Your task to perform on an android device: change notifications settings Image 0: 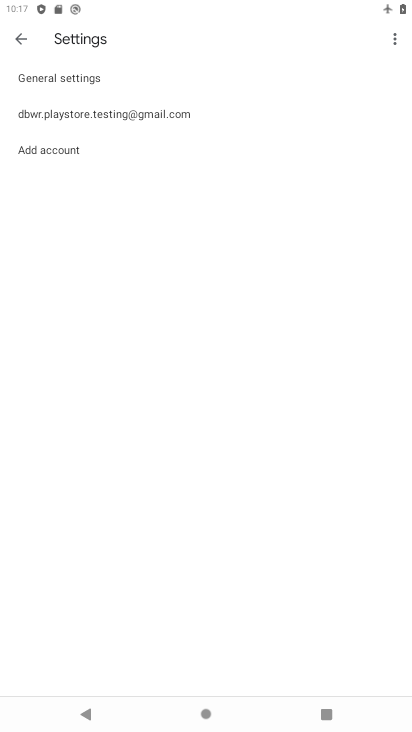
Step 0: press home button
Your task to perform on an android device: change notifications settings Image 1: 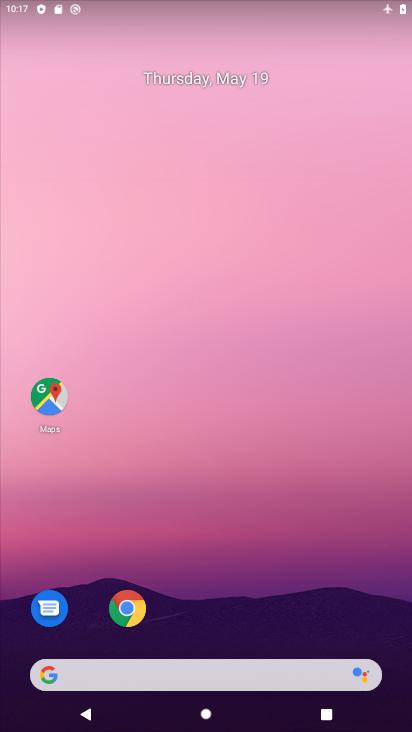
Step 1: drag from (392, 672) to (390, 274)
Your task to perform on an android device: change notifications settings Image 2: 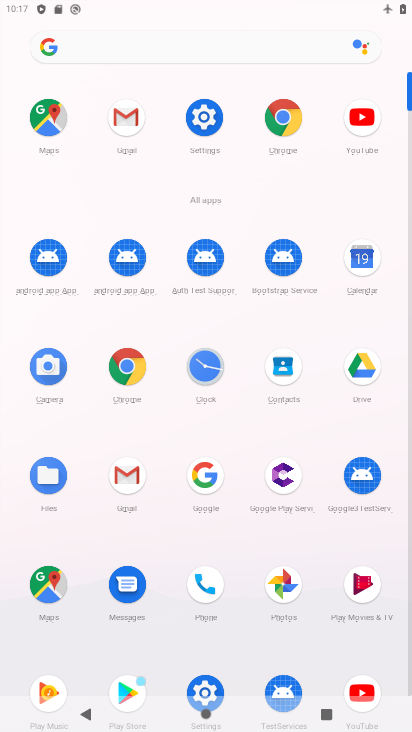
Step 2: click (205, 119)
Your task to perform on an android device: change notifications settings Image 3: 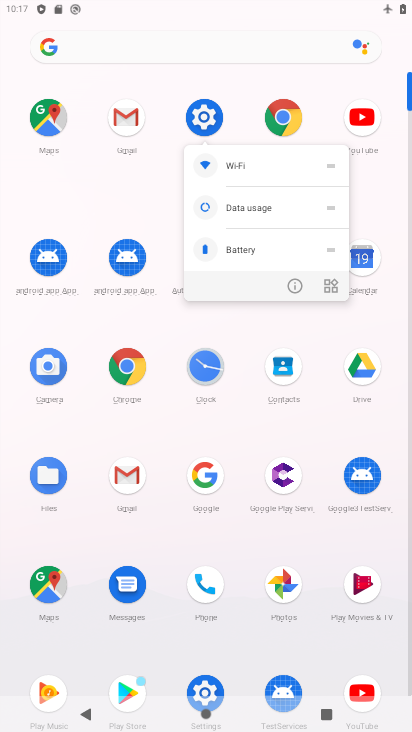
Step 3: click (202, 118)
Your task to perform on an android device: change notifications settings Image 4: 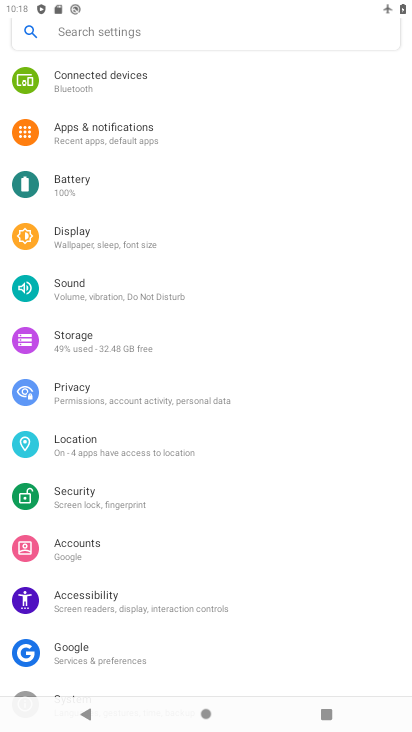
Step 4: drag from (221, 98) to (243, 479)
Your task to perform on an android device: change notifications settings Image 5: 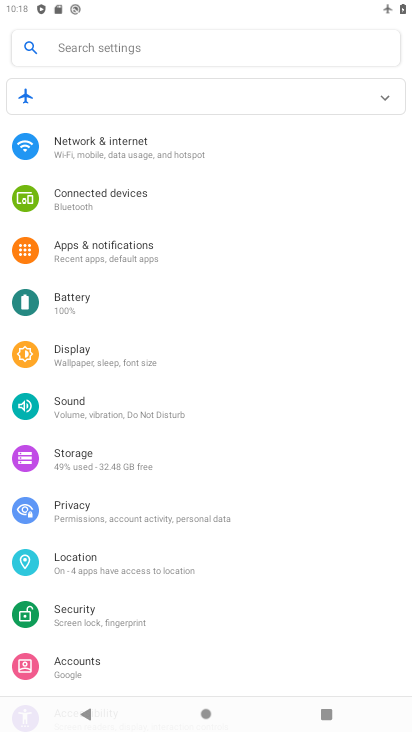
Step 5: click (65, 236)
Your task to perform on an android device: change notifications settings Image 6: 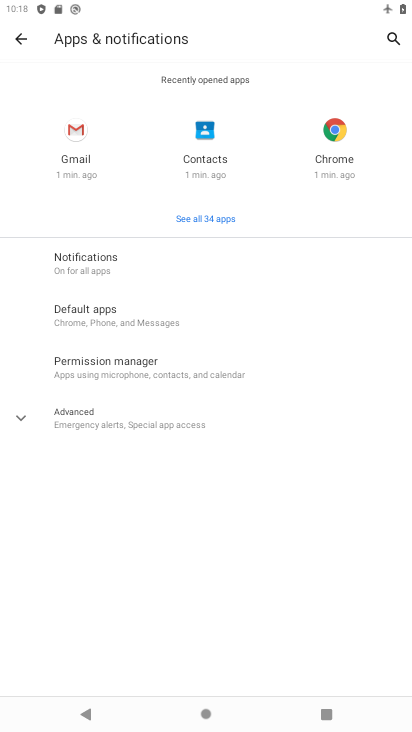
Step 6: click (70, 251)
Your task to perform on an android device: change notifications settings Image 7: 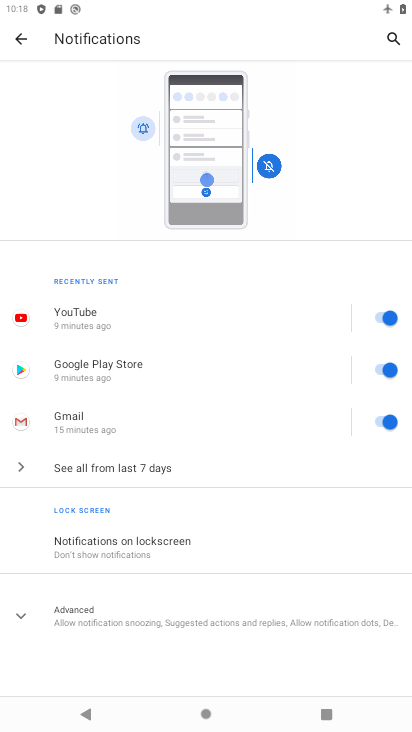
Step 7: task complete